Your task to perform on an android device: turn notification dots off Image 0: 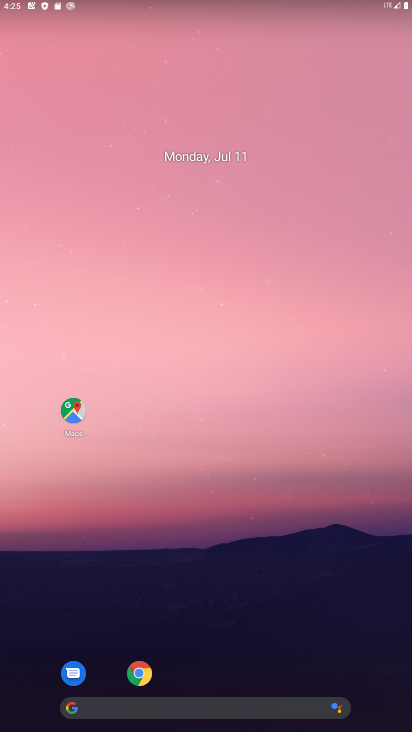
Step 0: drag from (228, 703) to (175, 74)
Your task to perform on an android device: turn notification dots off Image 1: 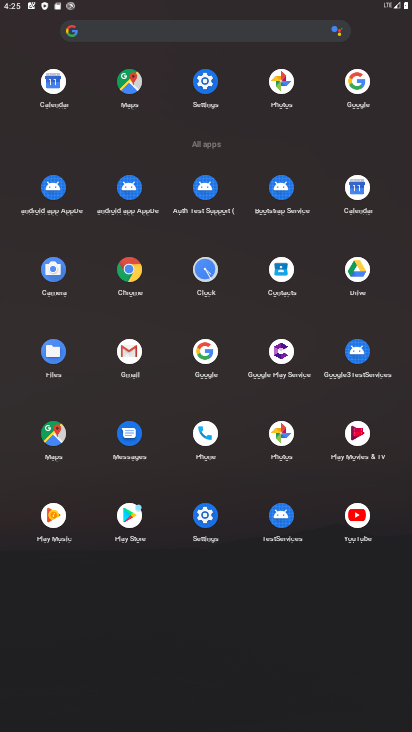
Step 1: click (205, 515)
Your task to perform on an android device: turn notification dots off Image 2: 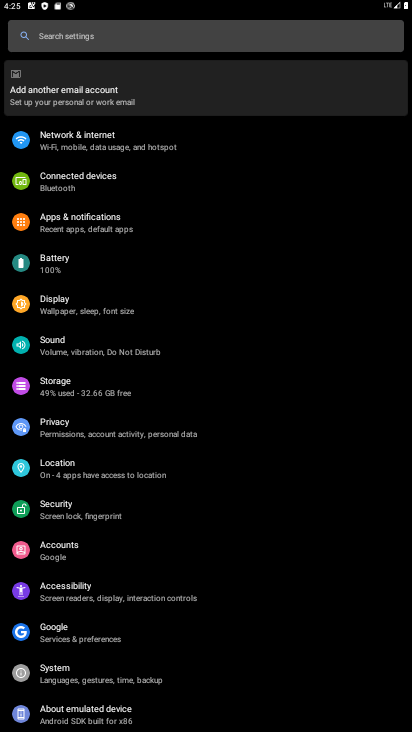
Step 2: click (104, 229)
Your task to perform on an android device: turn notification dots off Image 3: 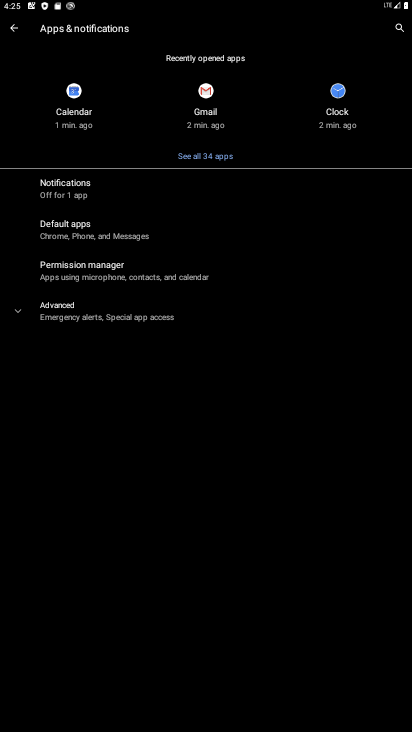
Step 3: click (72, 189)
Your task to perform on an android device: turn notification dots off Image 4: 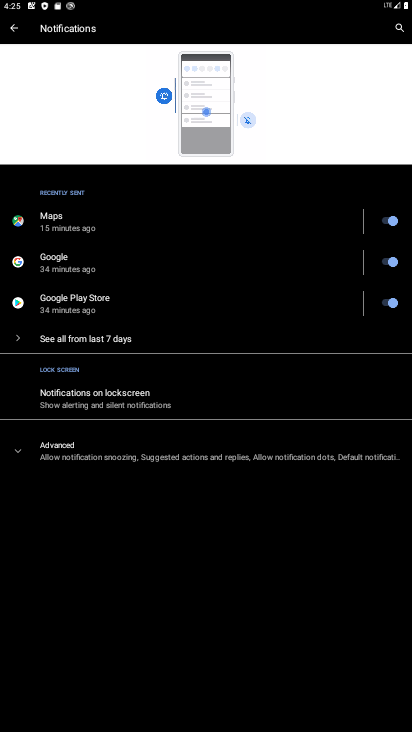
Step 4: click (120, 456)
Your task to perform on an android device: turn notification dots off Image 5: 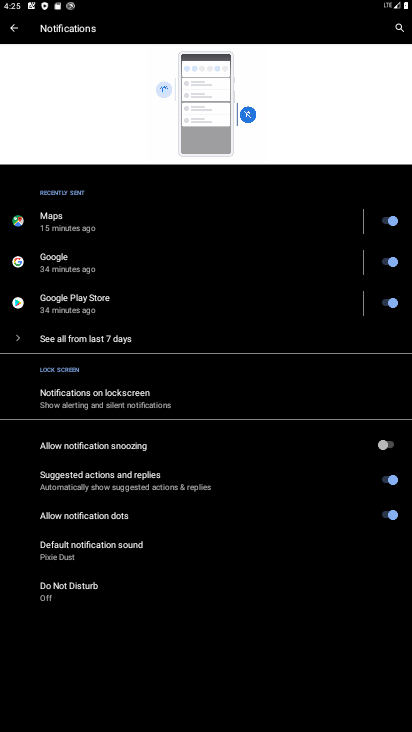
Step 5: click (391, 515)
Your task to perform on an android device: turn notification dots off Image 6: 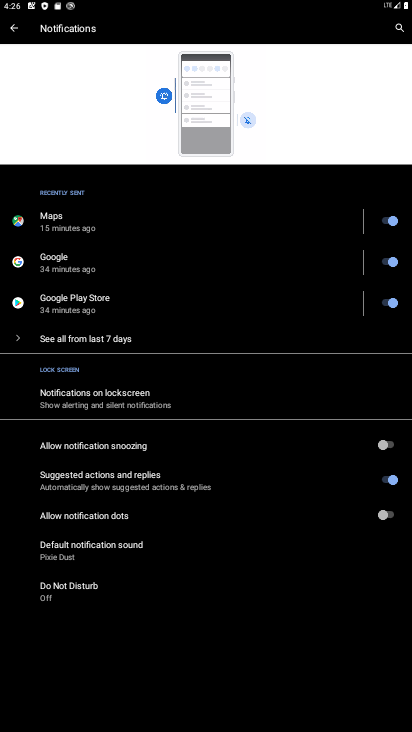
Step 6: task complete